Your task to perform on an android device: open a new tab in the chrome app Image 0: 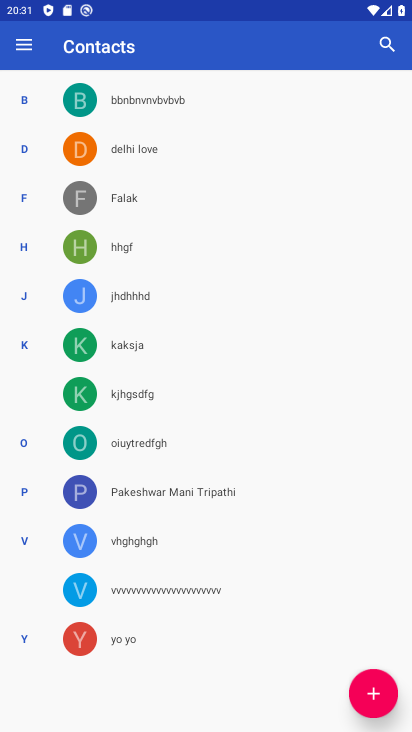
Step 0: press home button
Your task to perform on an android device: open a new tab in the chrome app Image 1: 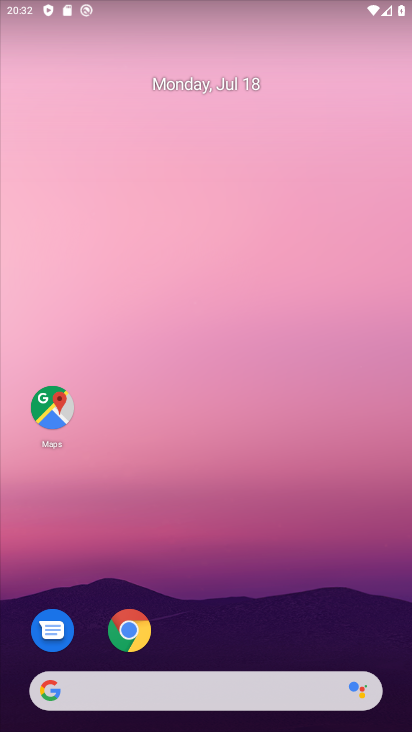
Step 1: click (131, 629)
Your task to perform on an android device: open a new tab in the chrome app Image 2: 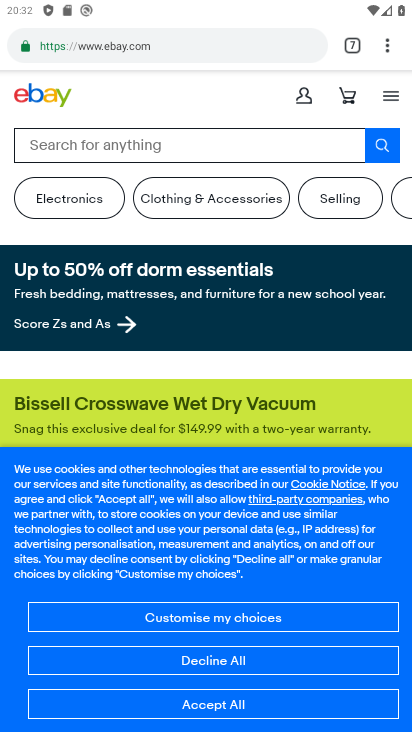
Step 2: click (387, 36)
Your task to perform on an android device: open a new tab in the chrome app Image 3: 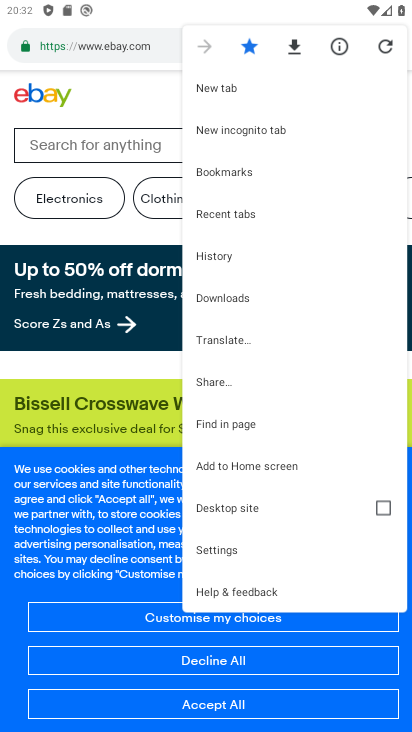
Step 3: click (259, 83)
Your task to perform on an android device: open a new tab in the chrome app Image 4: 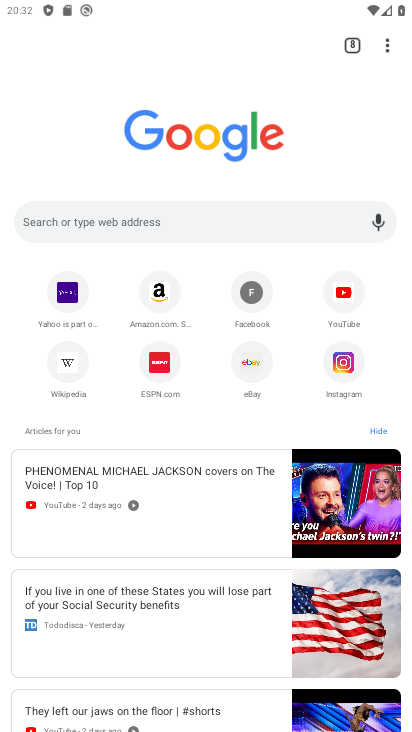
Step 4: task complete